Your task to perform on an android device: What's the US dollar exchange rate against the Canadian Dollar? Image 0: 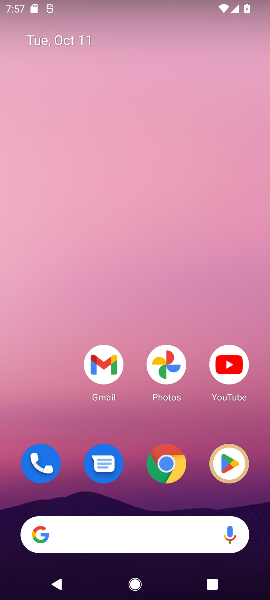
Step 0: drag from (103, 502) to (115, 141)
Your task to perform on an android device: What's the US dollar exchange rate against the Canadian Dollar? Image 1: 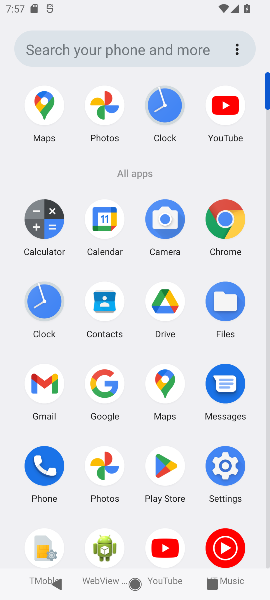
Step 1: click (106, 389)
Your task to perform on an android device: What's the US dollar exchange rate against the Canadian Dollar? Image 2: 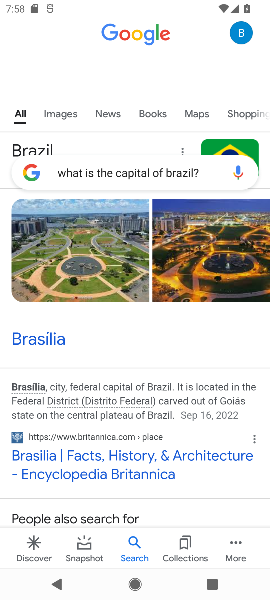
Step 2: click (138, 167)
Your task to perform on an android device: What's the US dollar exchange rate against the Canadian Dollar? Image 3: 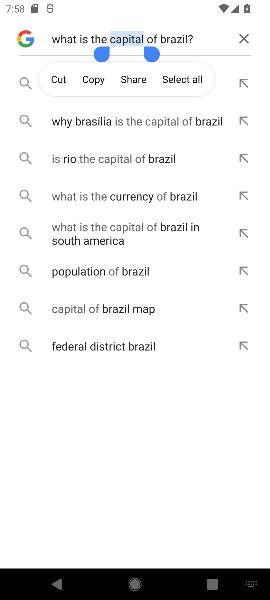
Step 3: click (247, 30)
Your task to perform on an android device: What's the US dollar exchange rate against the Canadian Dollar? Image 4: 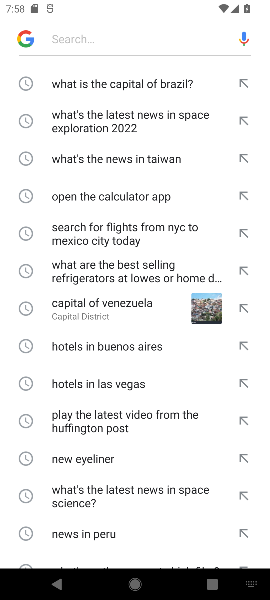
Step 4: click (162, 32)
Your task to perform on an android device: What's the US dollar exchange rate against the Canadian Dollar? Image 5: 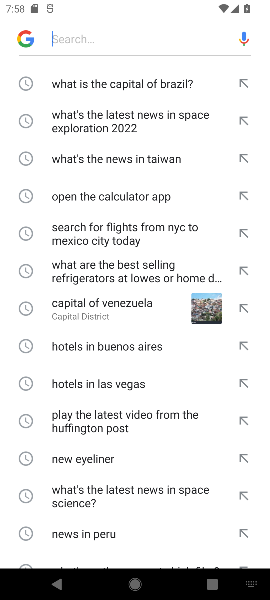
Step 5: type "What's the US dollar exchange rate against the Canadian Dollar? "
Your task to perform on an android device: What's the US dollar exchange rate against the Canadian Dollar? Image 6: 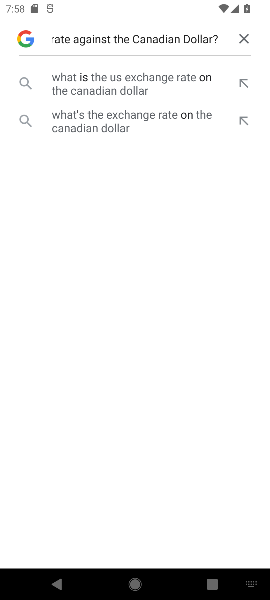
Step 6: click (151, 78)
Your task to perform on an android device: What's the US dollar exchange rate against the Canadian Dollar? Image 7: 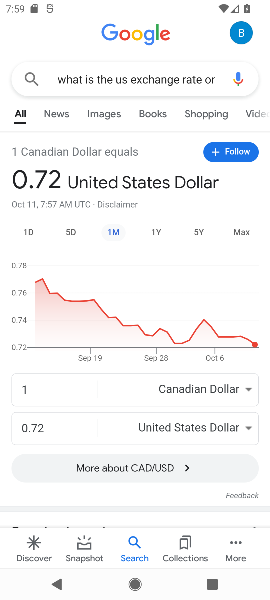
Step 7: task complete